Your task to perform on an android device: toggle sleep mode Image 0: 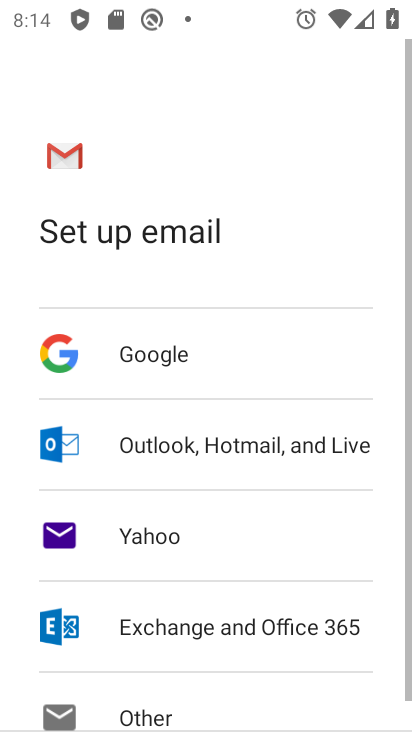
Step 0: press home button
Your task to perform on an android device: toggle sleep mode Image 1: 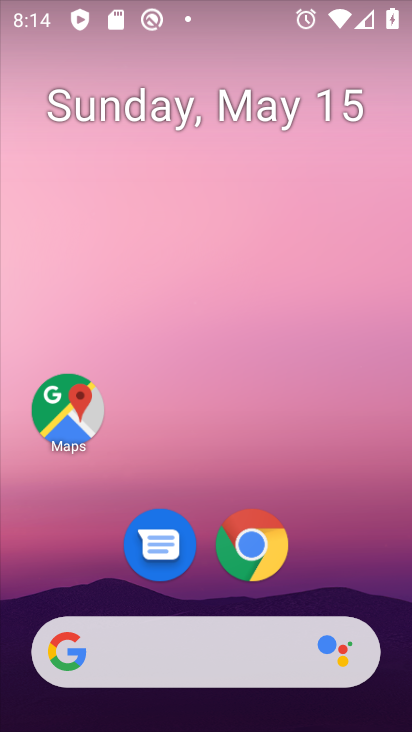
Step 1: drag from (383, 558) to (372, 76)
Your task to perform on an android device: toggle sleep mode Image 2: 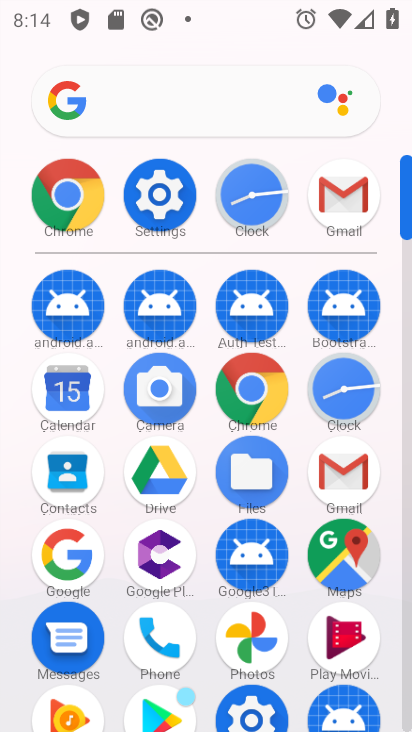
Step 2: click (166, 197)
Your task to perform on an android device: toggle sleep mode Image 3: 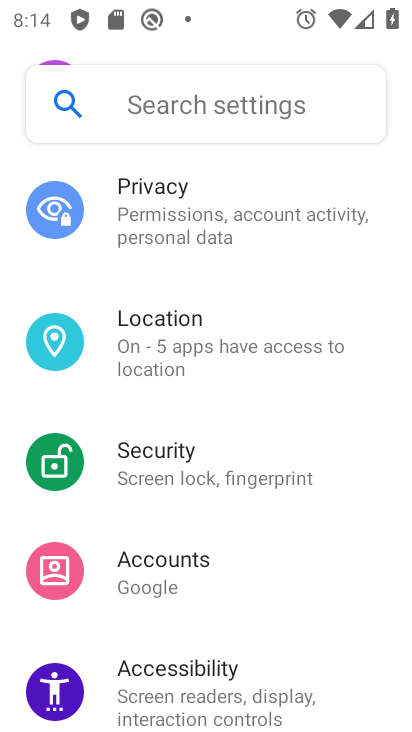
Step 3: drag from (381, 286) to (351, 559)
Your task to perform on an android device: toggle sleep mode Image 4: 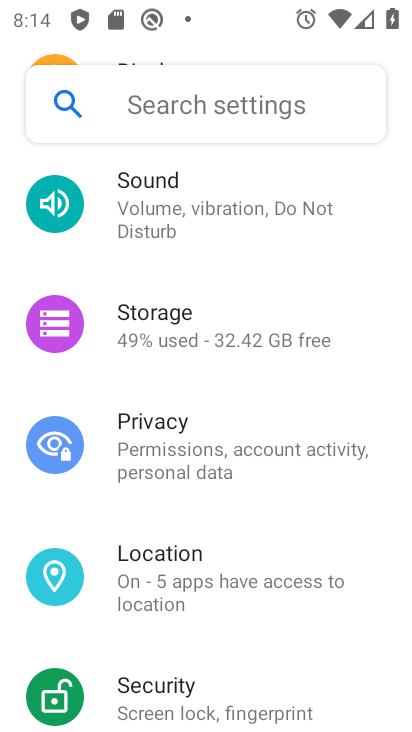
Step 4: drag from (370, 257) to (372, 573)
Your task to perform on an android device: toggle sleep mode Image 5: 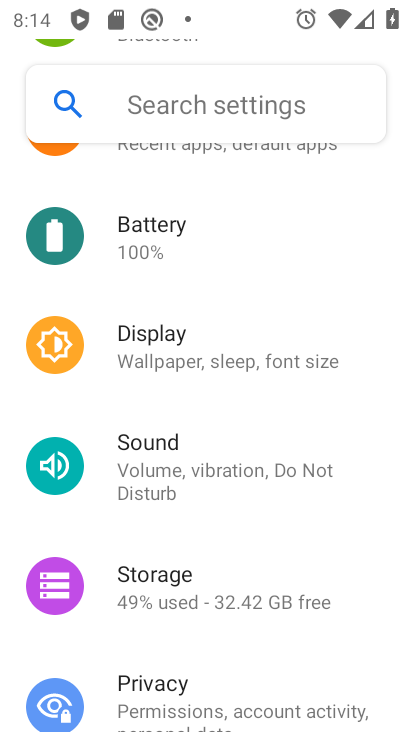
Step 5: drag from (367, 236) to (351, 543)
Your task to perform on an android device: toggle sleep mode Image 6: 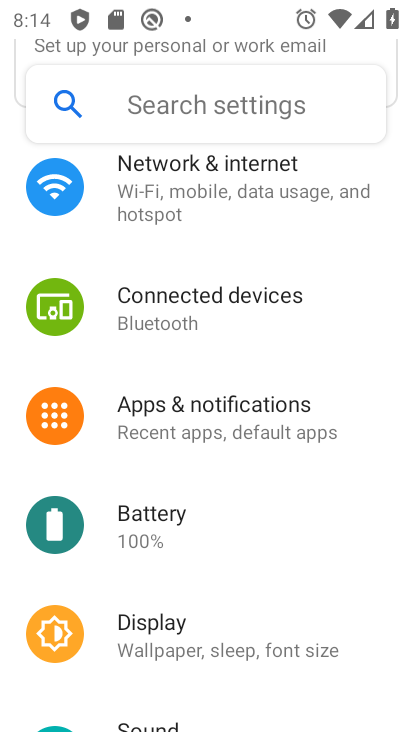
Step 6: drag from (360, 247) to (361, 524)
Your task to perform on an android device: toggle sleep mode Image 7: 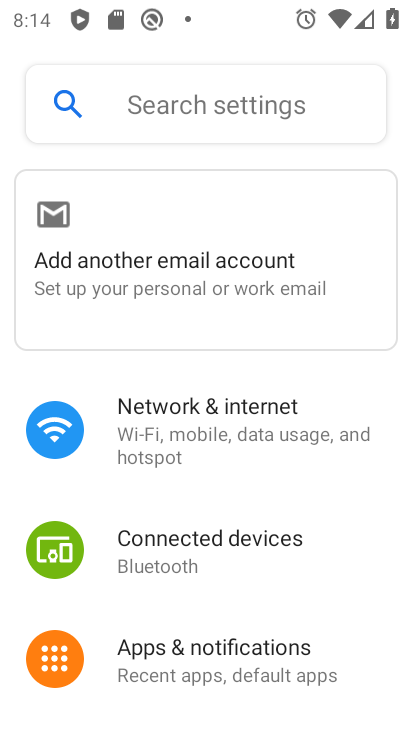
Step 7: drag from (360, 690) to (383, 401)
Your task to perform on an android device: toggle sleep mode Image 8: 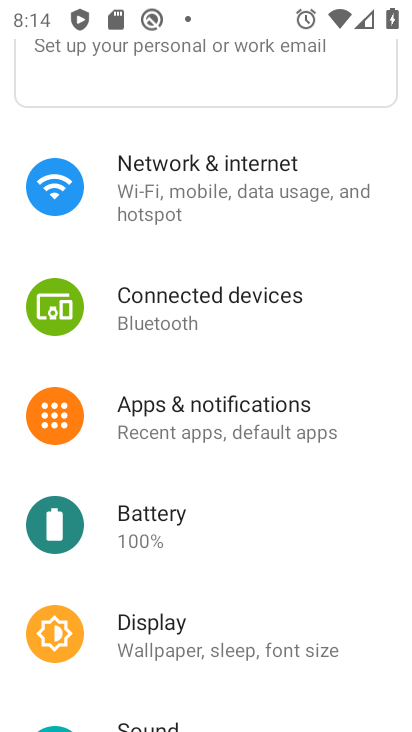
Step 8: drag from (366, 697) to (363, 436)
Your task to perform on an android device: toggle sleep mode Image 9: 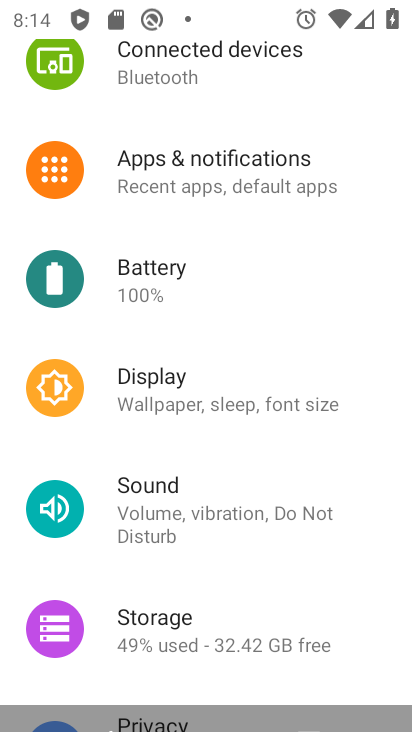
Step 9: drag from (355, 598) to (360, 380)
Your task to perform on an android device: toggle sleep mode Image 10: 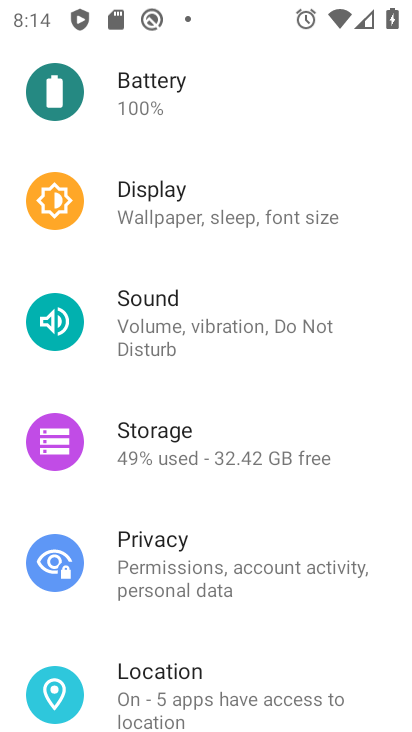
Step 10: click (260, 220)
Your task to perform on an android device: toggle sleep mode Image 11: 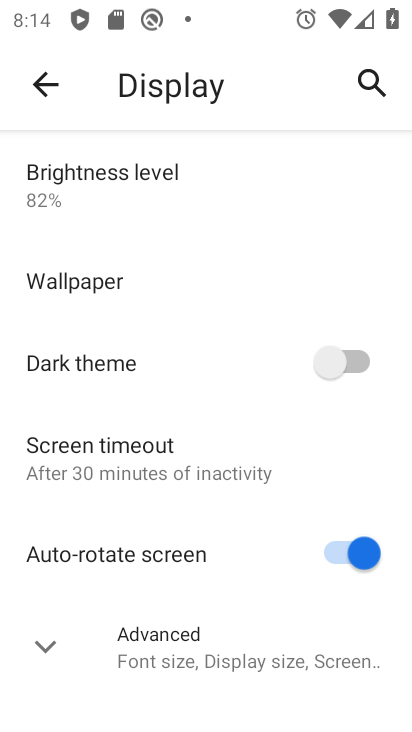
Step 11: click (246, 661)
Your task to perform on an android device: toggle sleep mode Image 12: 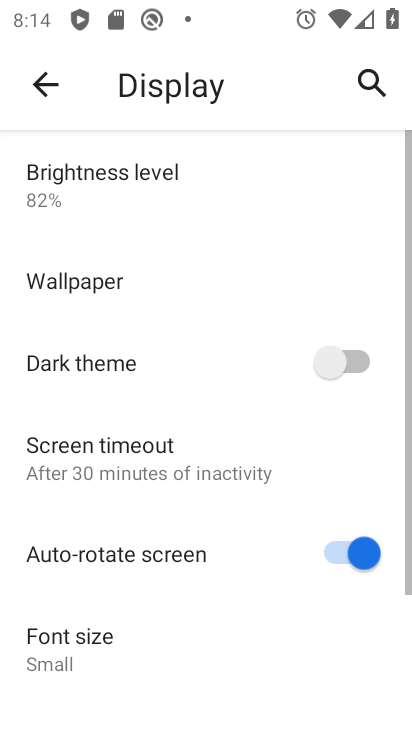
Step 12: task complete